Your task to perform on an android device: turn off notifications in google photos Image 0: 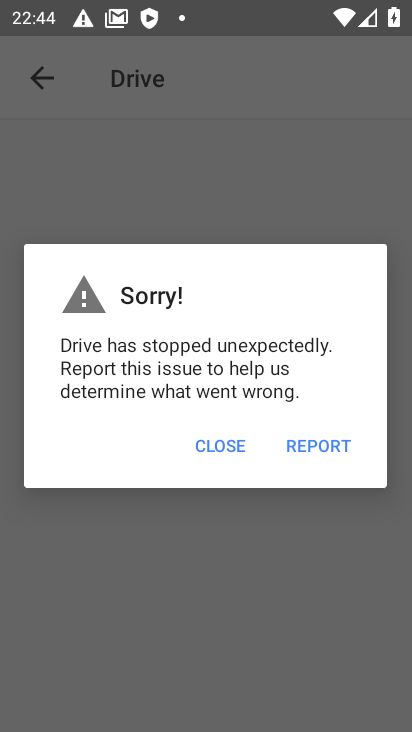
Step 0: click (232, 445)
Your task to perform on an android device: turn off notifications in google photos Image 1: 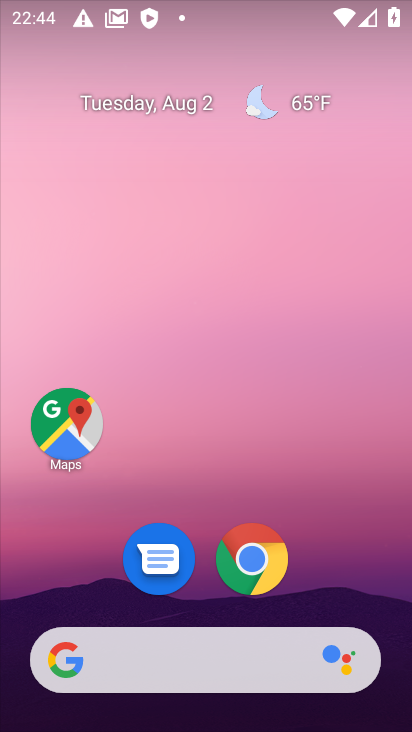
Step 1: drag from (211, 674) to (211, 265)
Your task to perform on an android device: turn off notifications in google photos Image 2: 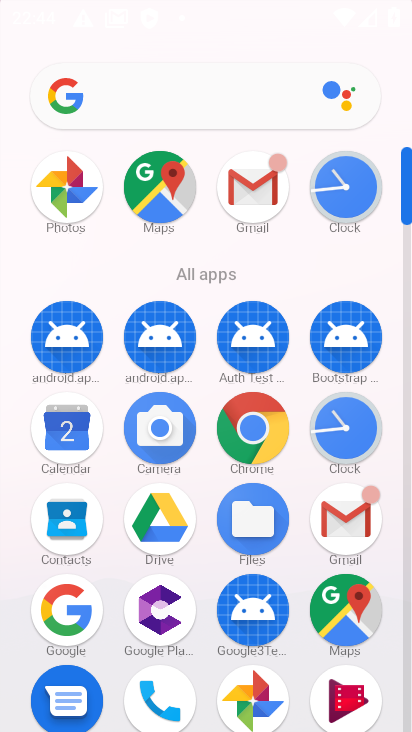
Step 2: drag from (231, 438) to (279, 272)
Your task to perform on an android device: turn off notifications in google photos Image 3: 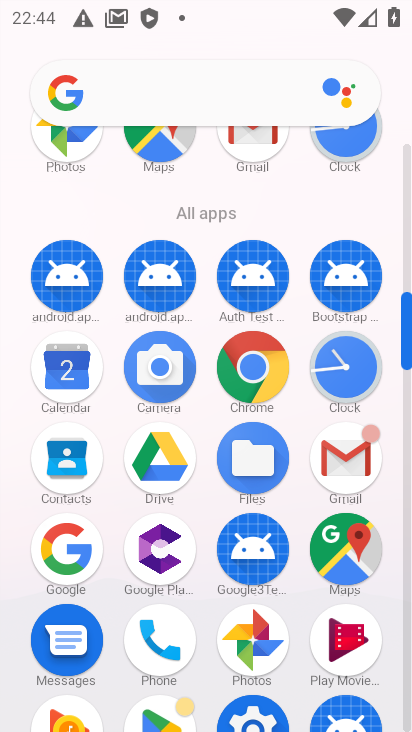
Step 3: drag from (197, 530) to (198, 324)
Your task to perform on an android device: turn off notifications in google photos Image 4: 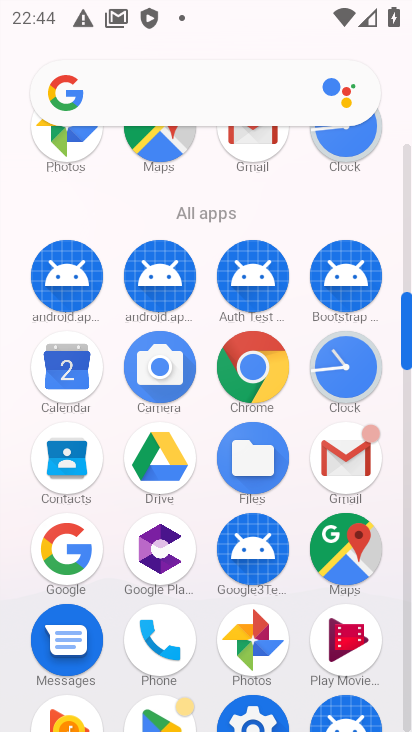
Step 4: click (253, 630)
Your task to perform on an android device: turn off notifications in google photos Image 5: 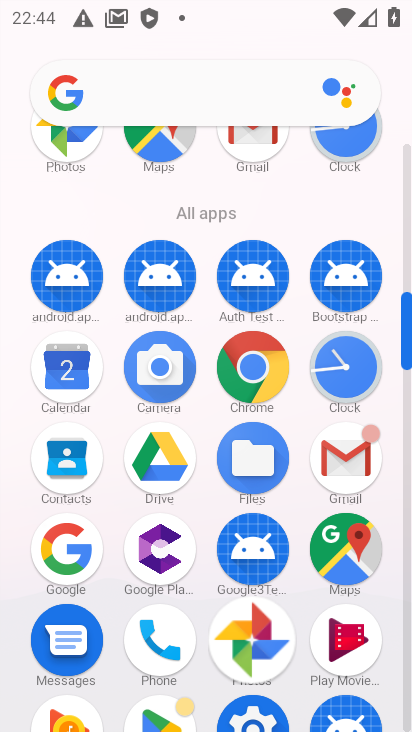
Step 5: click (253, 630)
Your task to perform on an android device: turn off notifications in google photos Image 6: 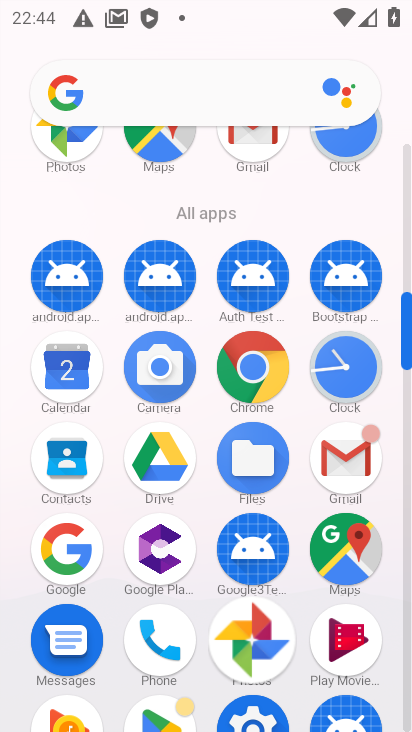
Step 6: click (254, 630)
Your task to perform on an android device: turn off notifications in google photos Image 7: 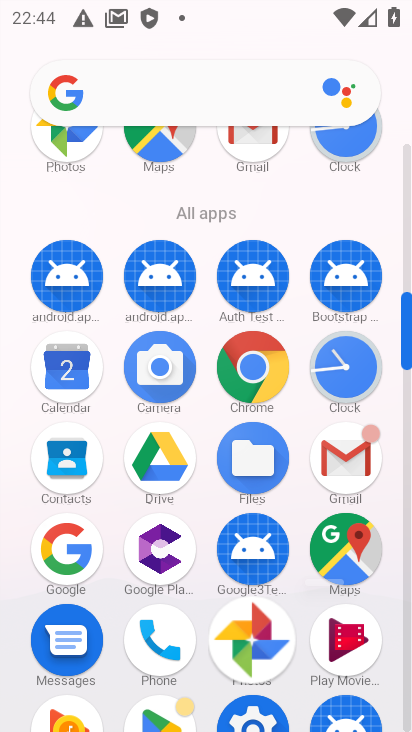
Step 7: click (254, 630)
Your task to perform on an android device: turn off notifications in google photos Image 8: 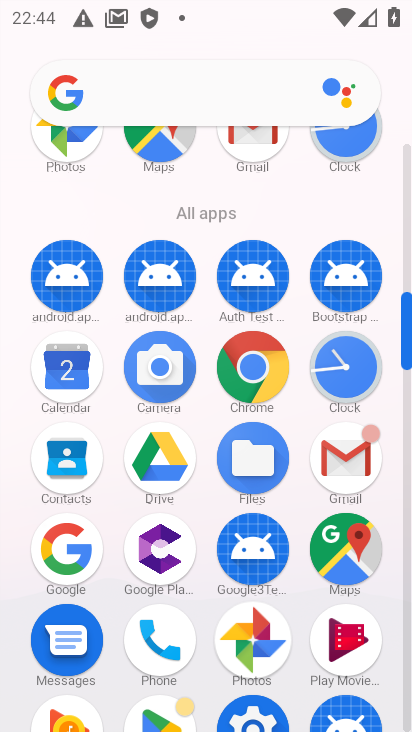
Step 8: click (257, 631)
Your task to perform on an android device: turn off notifications in google photos Image 9: 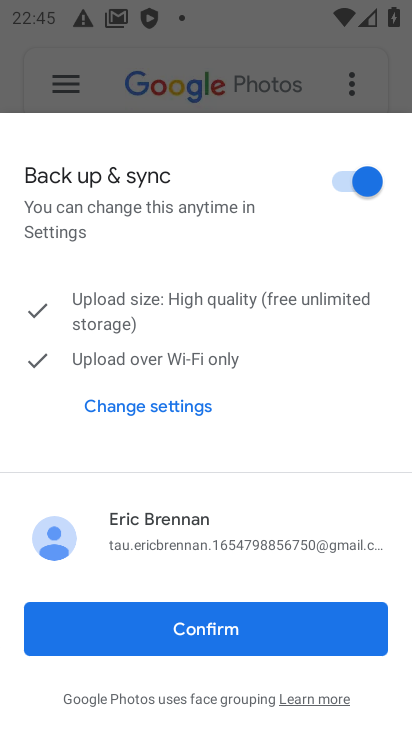
Step 9: click (239, 632)
Your task to perform on an android device: turn off notifications in google photos Image 10: 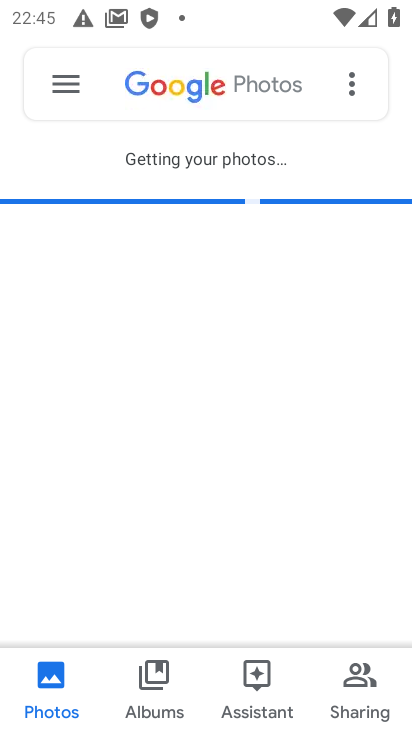
Step 10: click (61, 87)
Your task to perform on an android device: turn off notifications in google photos Image 11: 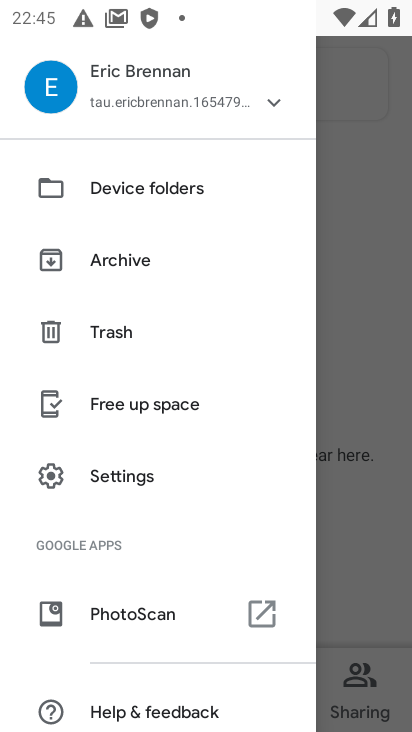
Step 11: drag from (92, 525) to (51, 232)
Your task to perform on an android device: turn off notifications in google photos Image 12: 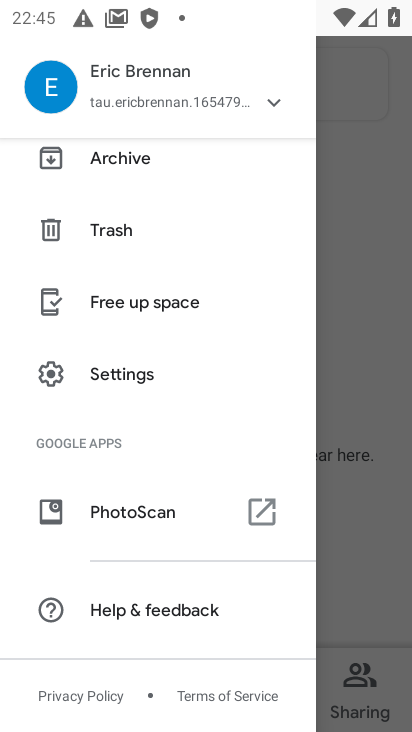
Step 12: click (122, 379)
Your task to perform on an android device: turn off notifications in google photos Image 13: 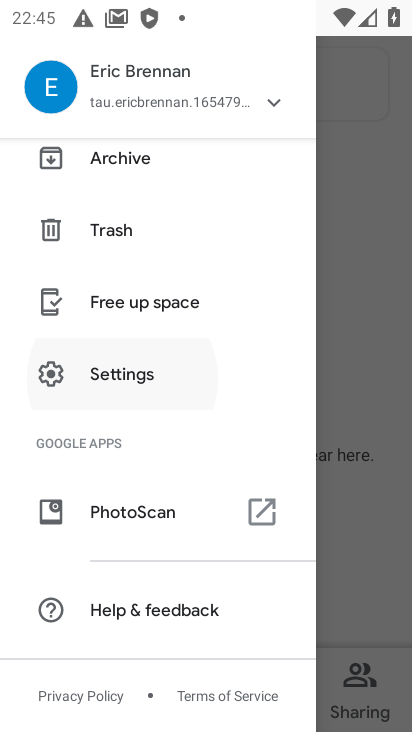
Step 13: click (122, 379)
Your task to perform on an android device: turn off notifications in google photos Image 14: 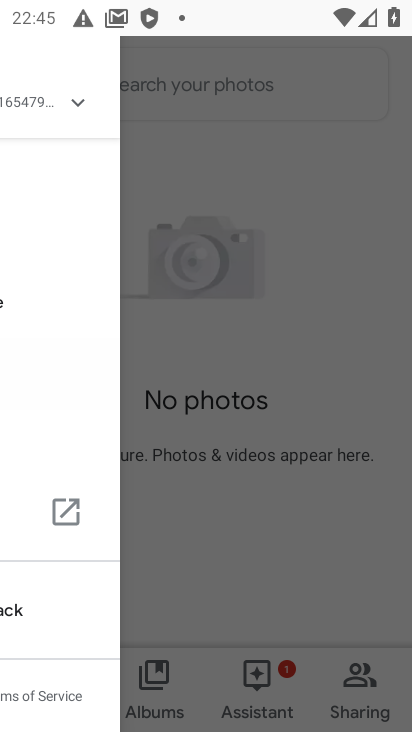
Step 14: click (122, 379)
Your task to perform on an android device: turn off notifications in google photos Image 15: 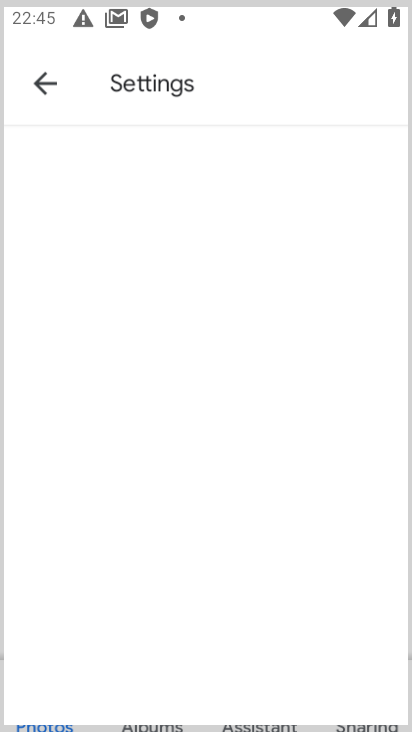
Step 15: click (122, 379)
Your task to perform on an android device: turn off notifications in google photos Image 16: 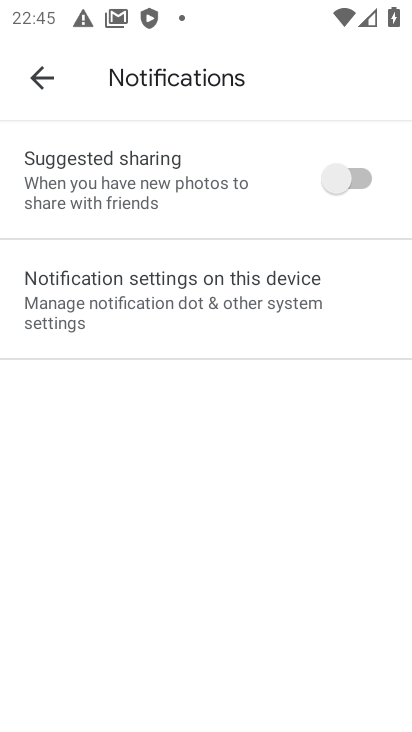
Step 16: task complete